Your task to perform on an android device: What is the speed of sound? Image 0: 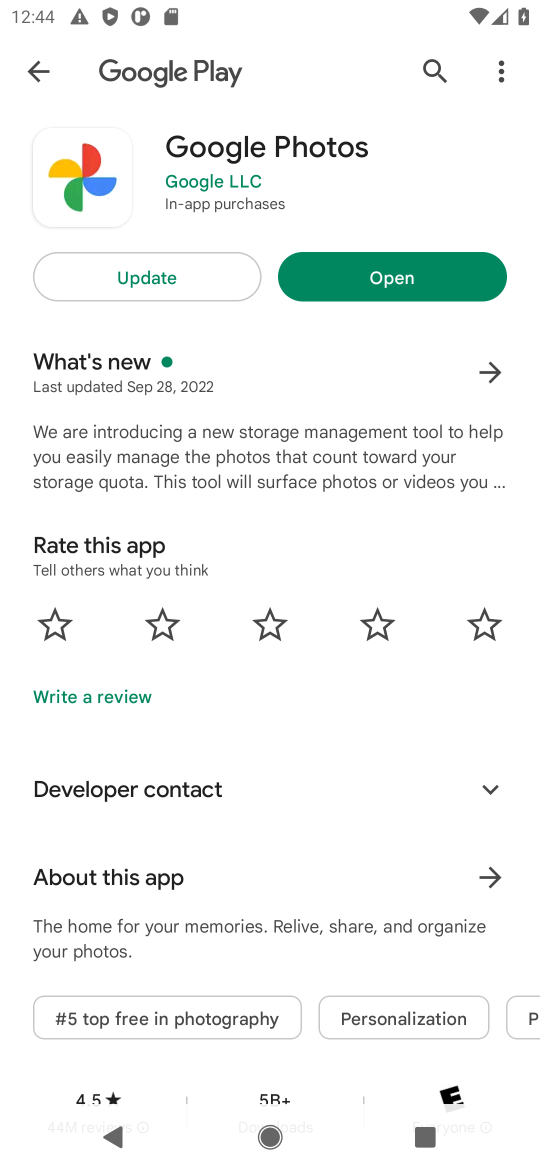
Step 0: press home button
Your task to perform on an android device: What is the speed of sound? Image 1: 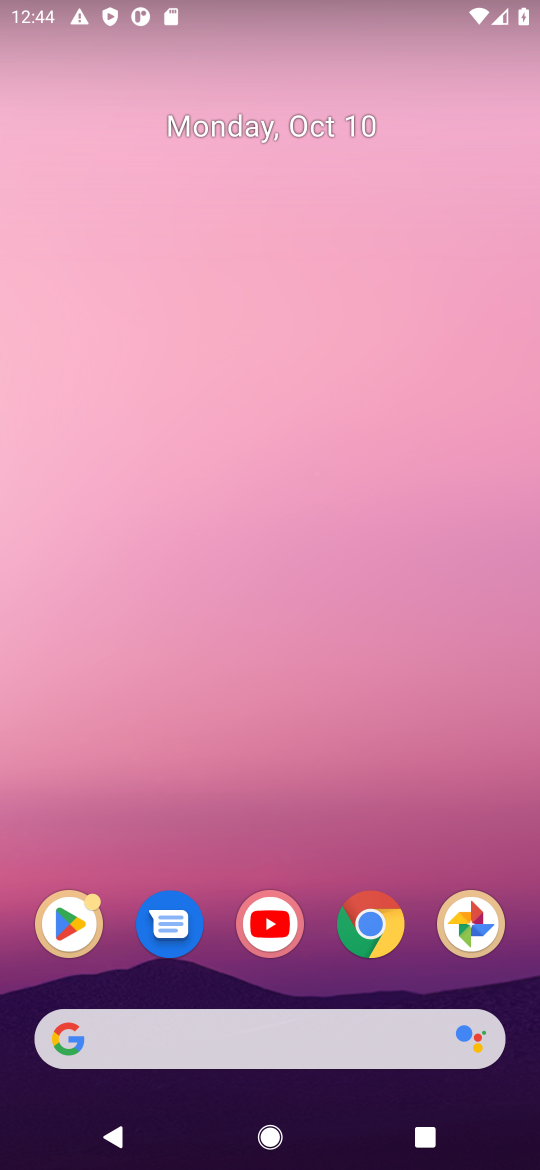
Step 1: drag from (164, 1099) to (186, 5)
Your task to perform on an android device: What is the speed of sound? Image 2: 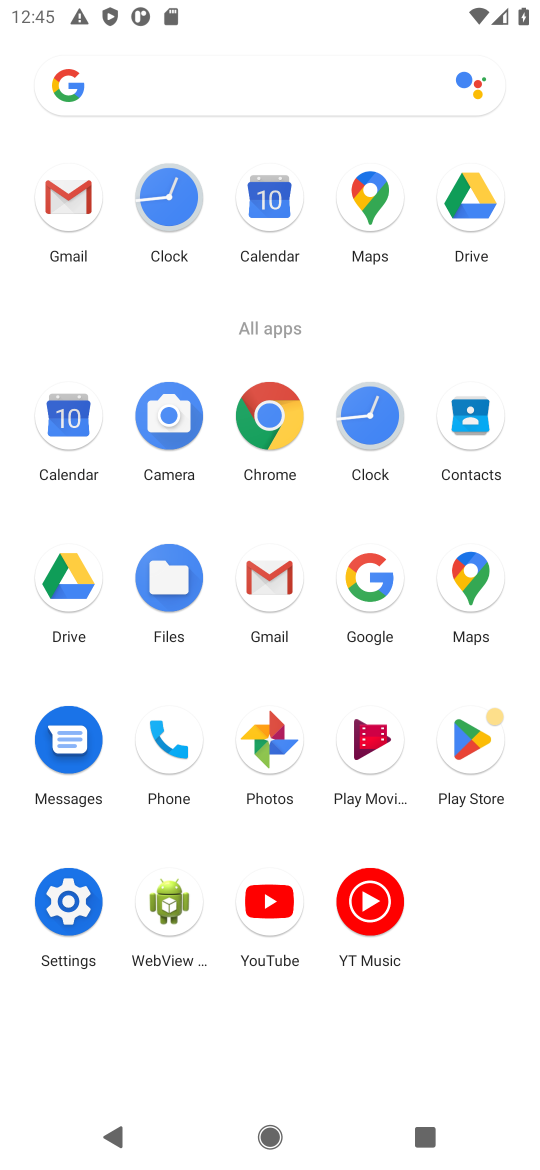
Step 2: click (278, 426)
Your task to perform on an android device: What is the speed of sound? Image 3: 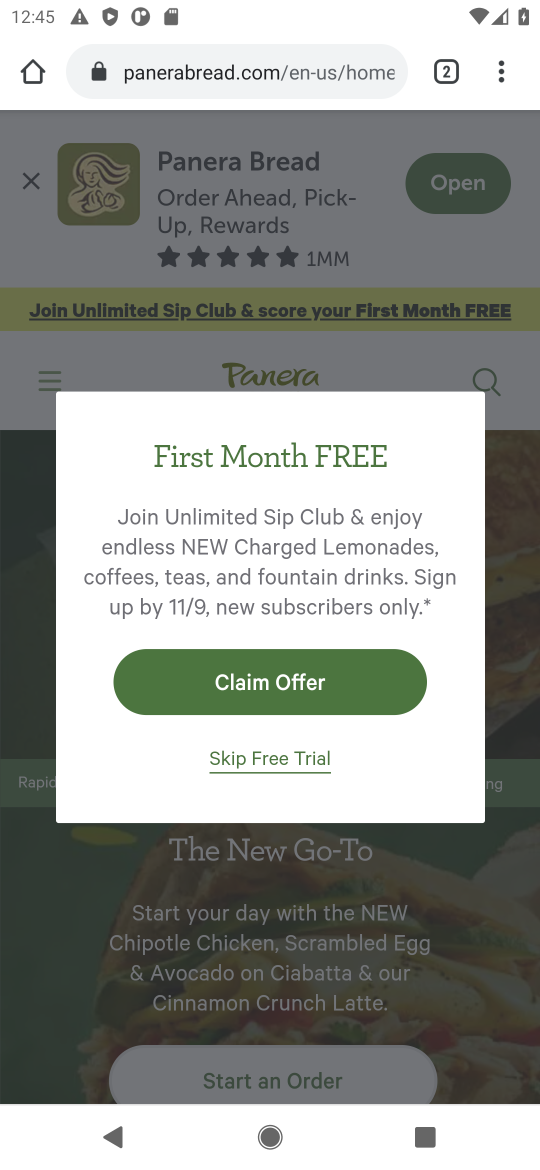
Step 3: click (233, 88)
Your task to perform on an android device: What is the speed of sound? Image 4: 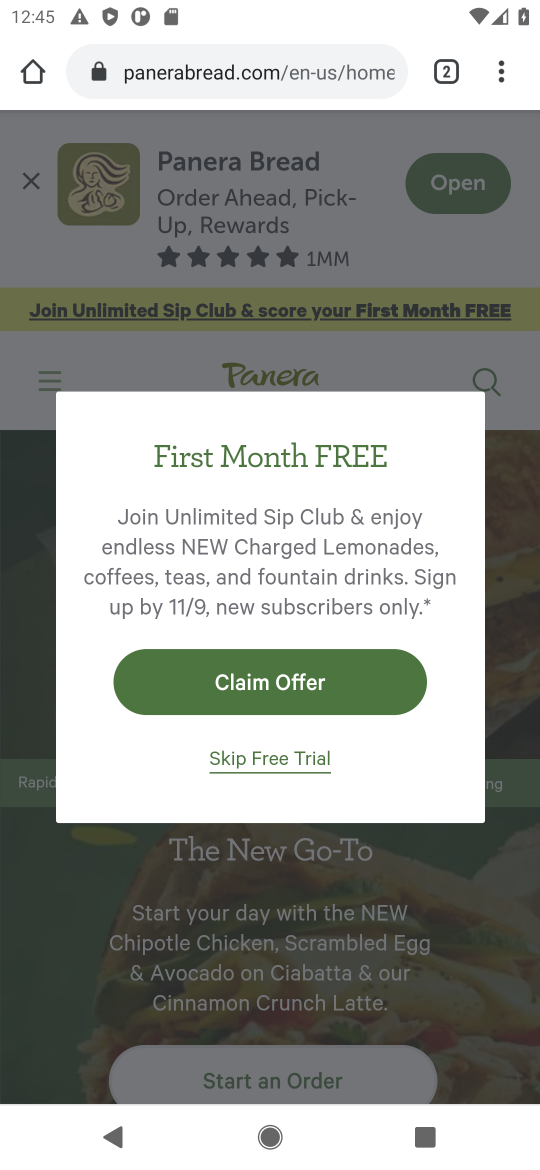
Step 4: click (233, 84)
Your task to perform on an android device: What is the speed of sound? Image 5: 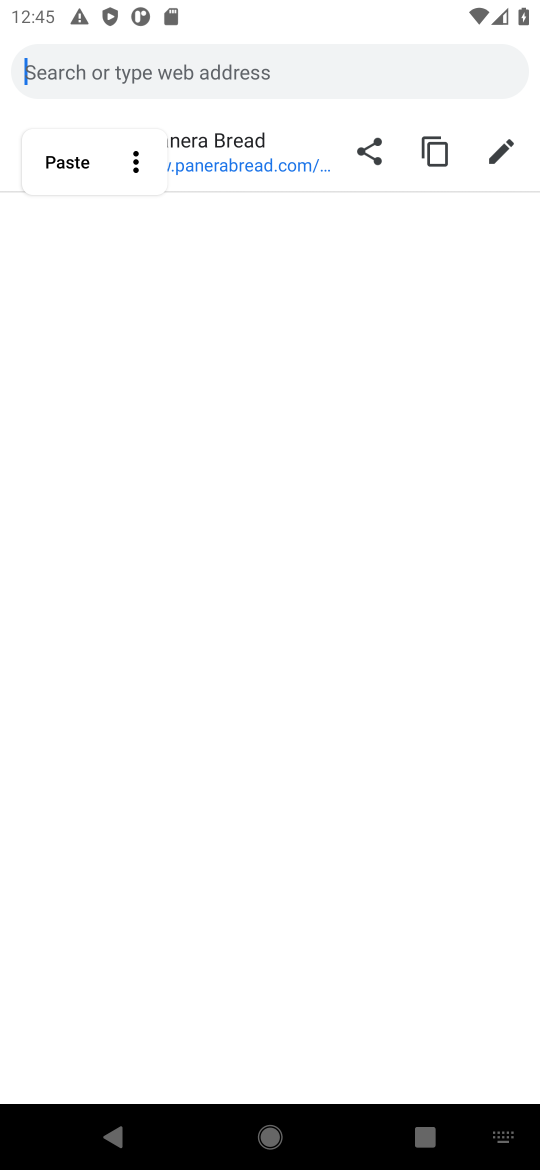
Step 5: type "What is the speed of sound"
Your task to perform on an android device: What is the speed of sound? Image 6: 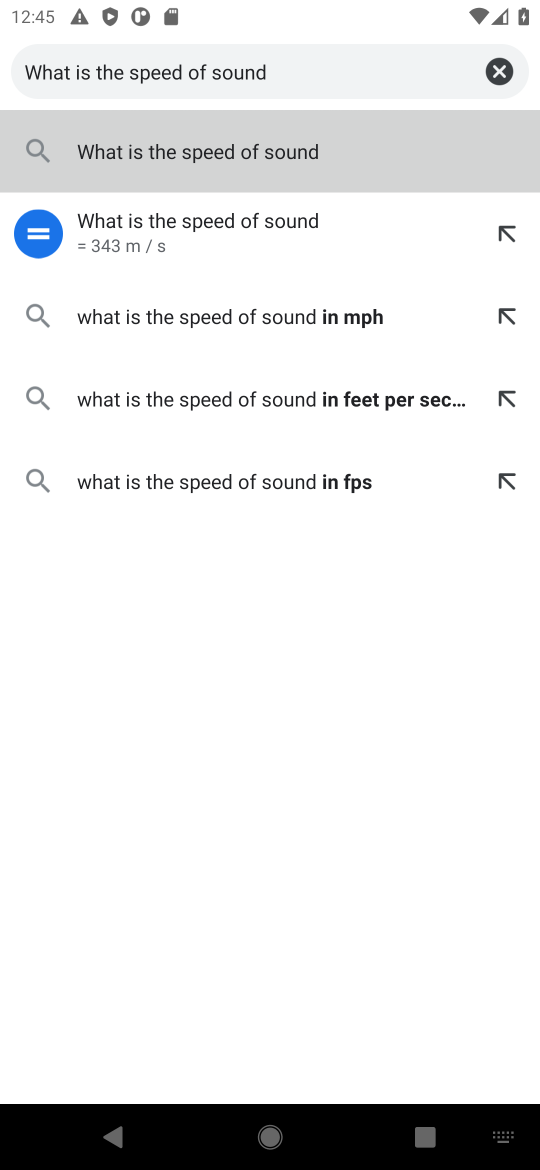
Step 6: press enter
Your task to perform on an android device: What is the speed of sound? Image 7: 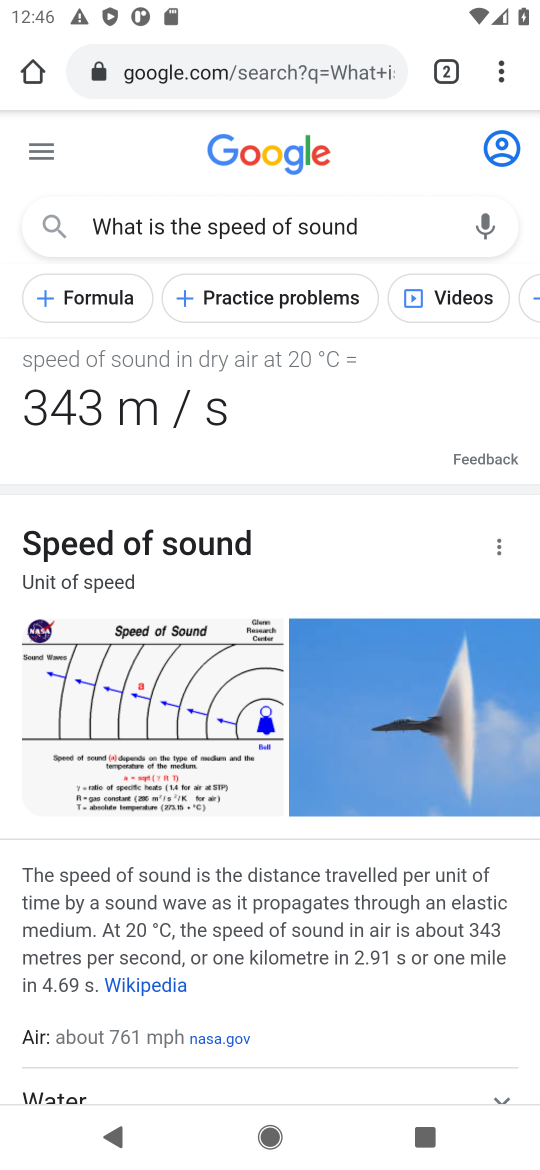
Step 7: task complete